Your task to perform on an android device: turn off location Image 0: 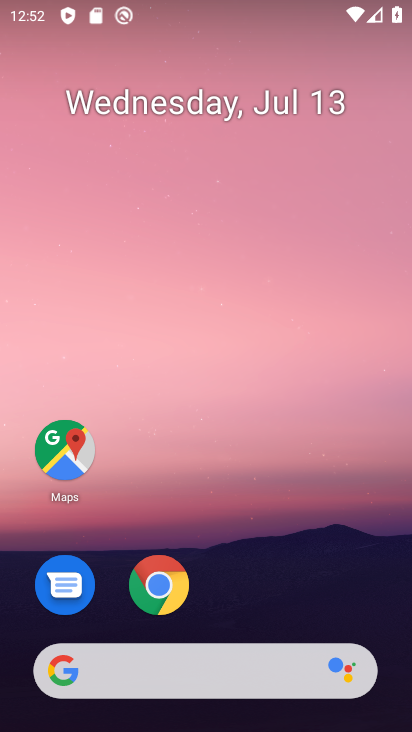
Step 0: drag from (167, 673) to (284, 170)
Your task to perform on an android device: turn off location Image 1: 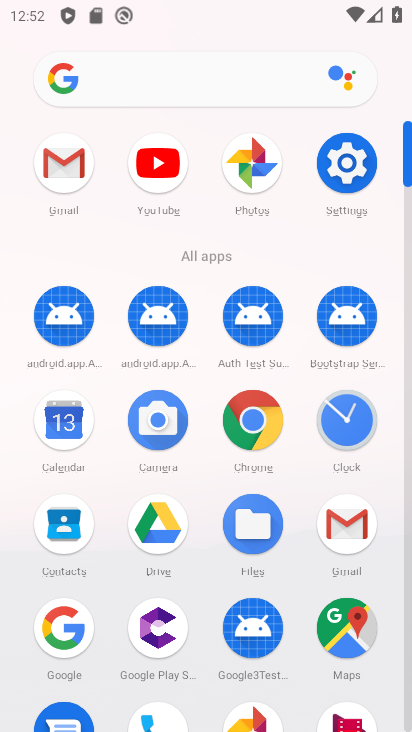
Step 1: click (351, 162)
Your task to perform on an android device: turn off location Image 2: 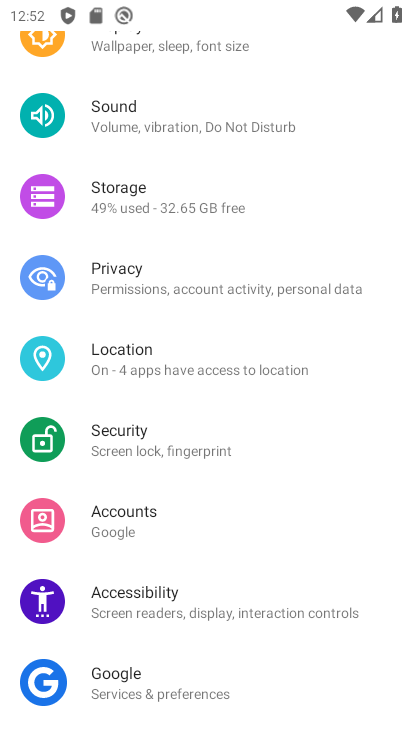
Step 2: click (143, 357)
Your task to perform on an android device: turn off location Image 3: 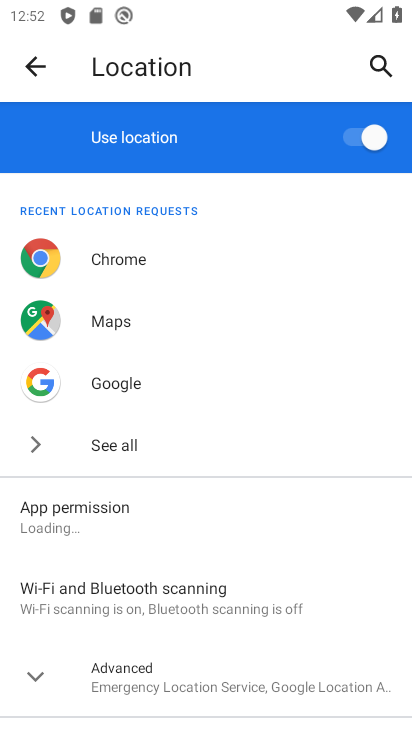
Step 3: click (360, 132)
Your task to perform on an android device: turn off location Image 4: 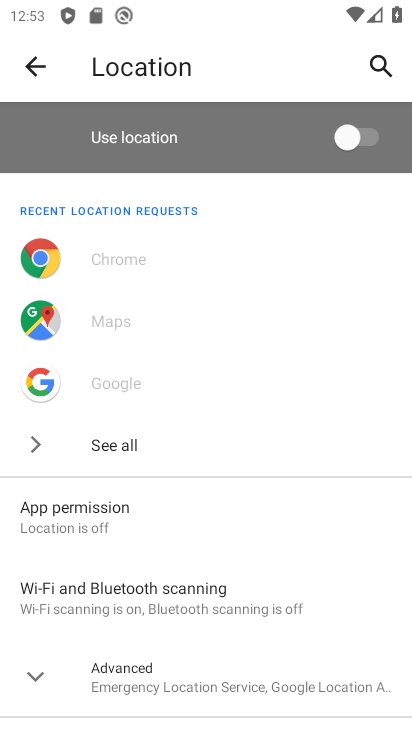
Step 4: task complete